Your task to perform on an android device: Open the web browser Image 0: 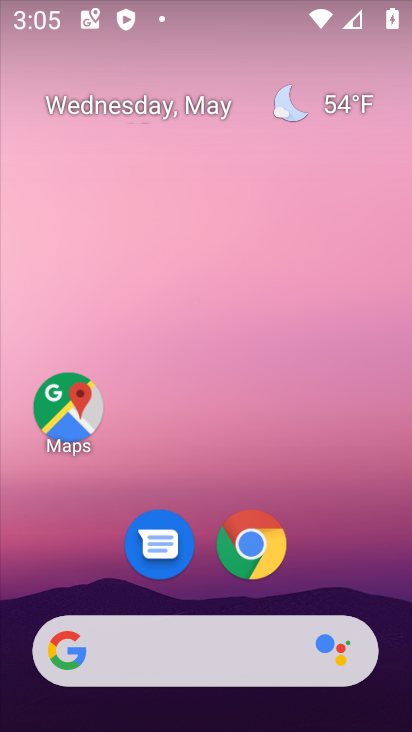
Step 0: click (269, 574)
Your task to perform on an android device: Open the web browser Image 1: 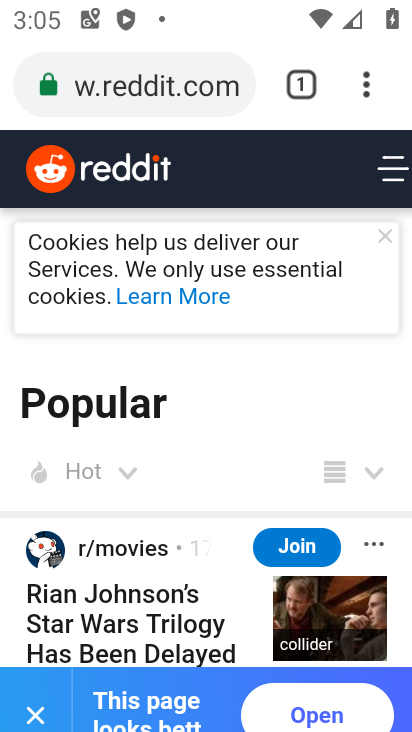
Step 1: task complete